Your task to perform on an android device: change the clock style Image 0: 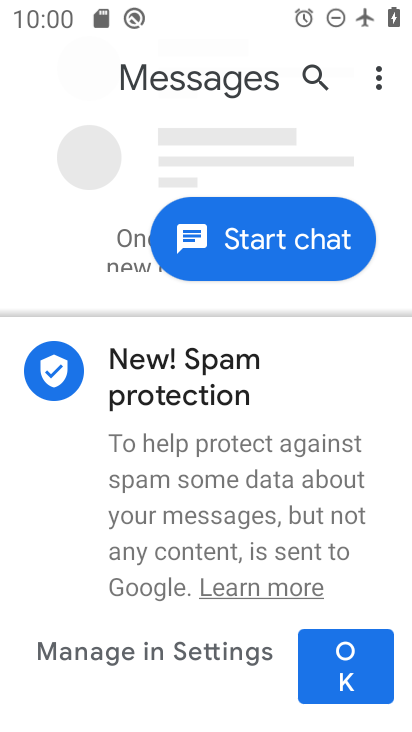
Step 0: press home button
Your task to perform on an android device: change the clock style Image 1: 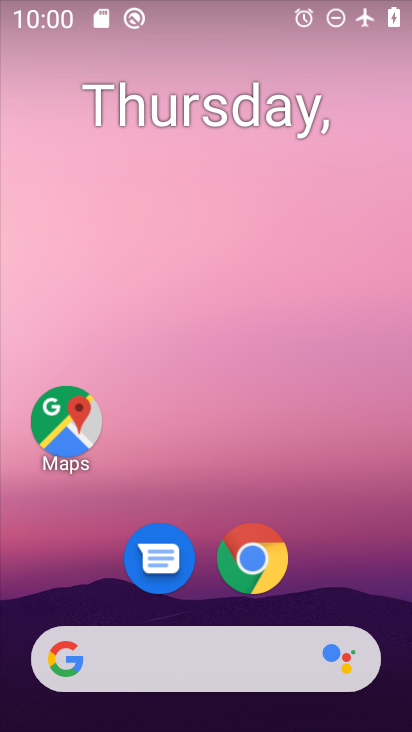
Step 1: drag from (352, 616) to (321, 131)
Your task to perform on an android device: change the clock style Image 2: 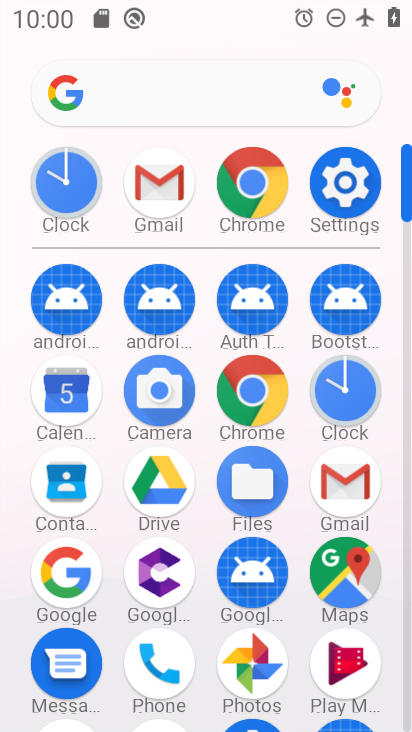
Step 2: click (342, 392)
Your task to perform on an android device: change the clock style Image 3: 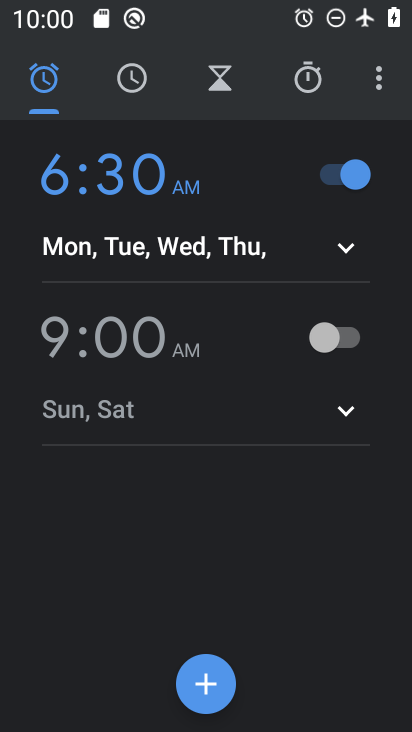
Step 3: click (375, 82)
Your task to perform on an android device: change the clock style Image 4: 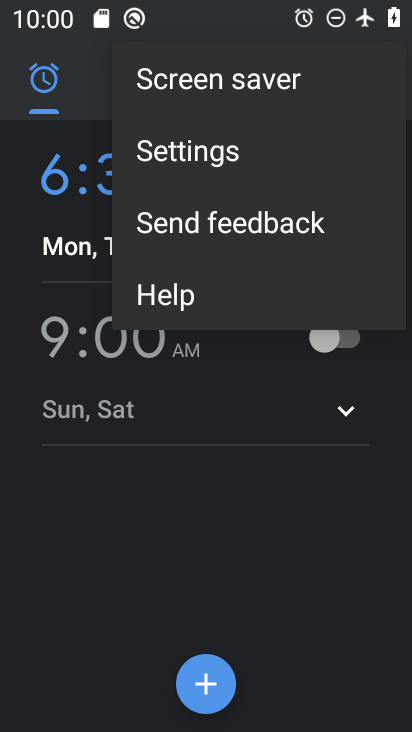
Step 4: click (164, 143)
Your task to perform on an android device: change the clock style Image 5: 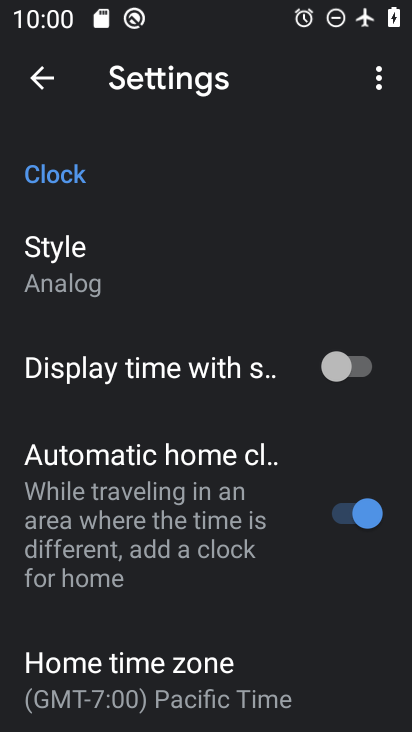
Step 5: click (53, 284)
Your task to perform on an android device: change the clock style Image 6: 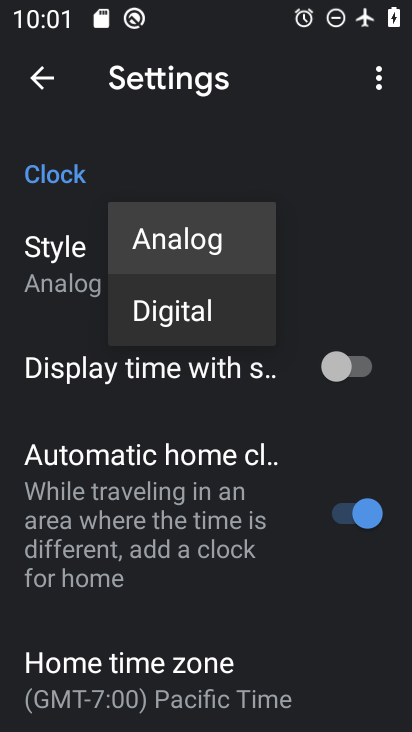
Step 6: click (171, 315)
Your task to perform on an android device: change the clock style Image 7: 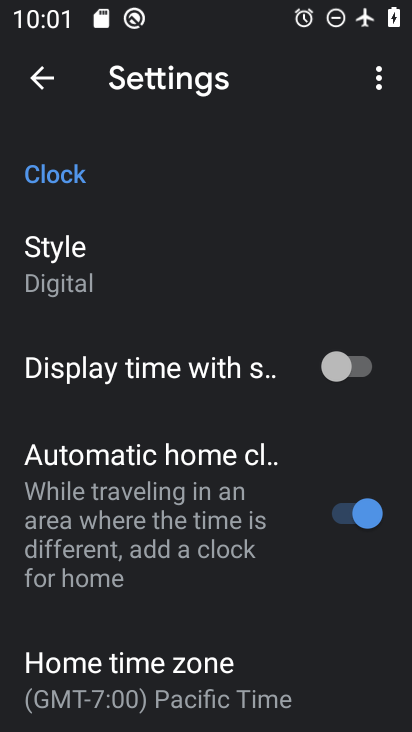
Step 7: task complete